Your task to perform on an android device: Open Google Maps Image 0: 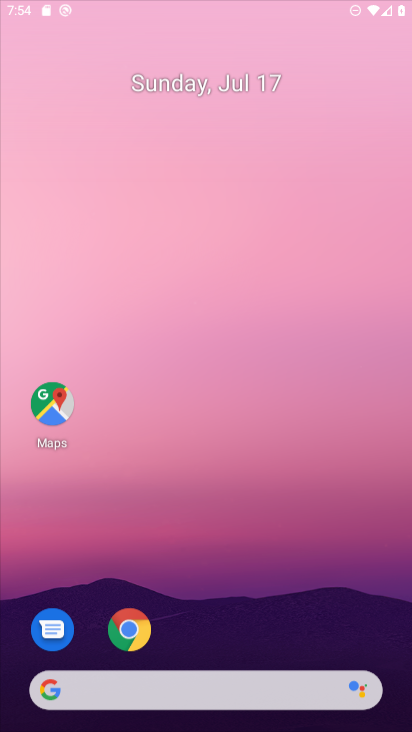
Step 0: drag from (237, 632) to (209, 196)
Your task to perform on an android device: Open Google Maps Image 1: 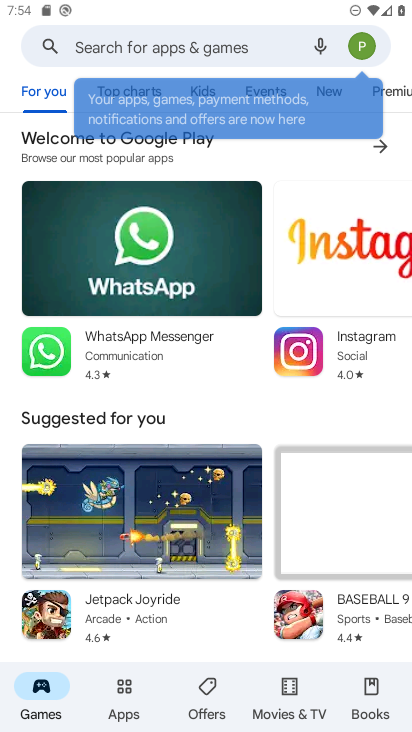
Step 1: press home button
Your task to perform on an android device: Open Google Maps Image 2: 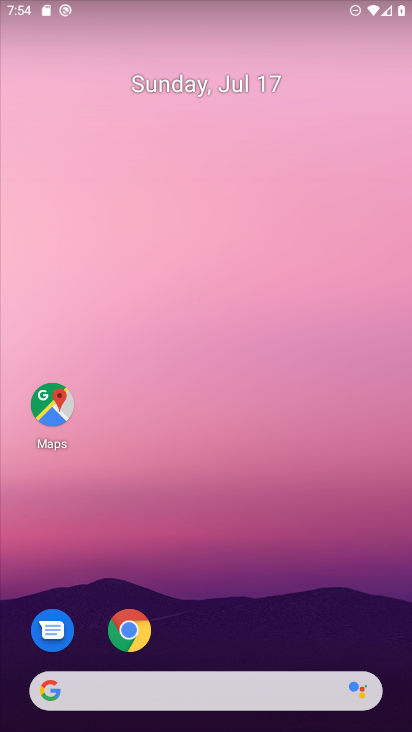
Step 2: click (59, 412)
Your task to perform on an android device: Open Google Maps Image 3: 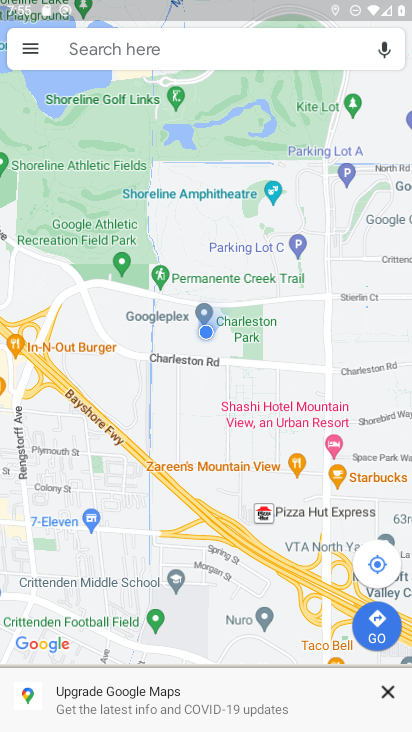
Step 3: task complete